Your task to perform on an android device: Find coffee shops on Maps Image 0: 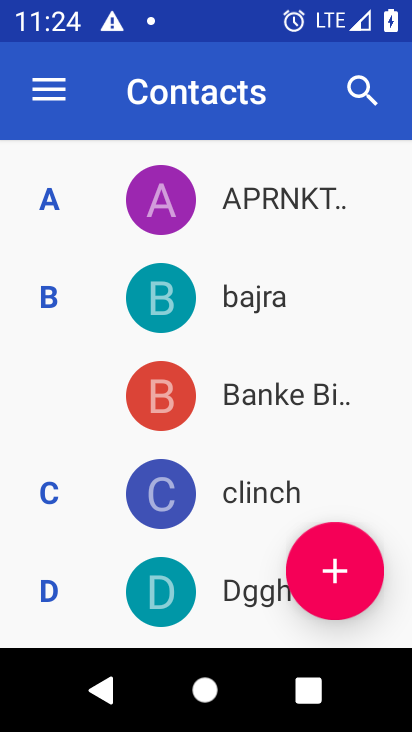
Step 0: press home button
Your task to perform on an android device: Find coffee shops on Maps Image 1: 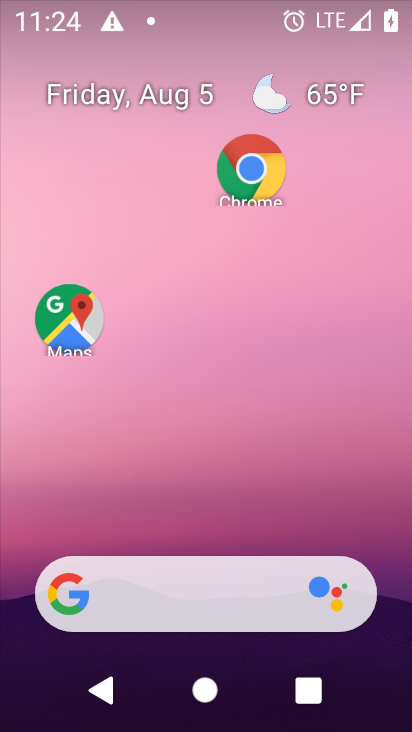
Step 1: click (97, 329)
Your task to perform on an android device: Find coffee shops on Maps Image 2: 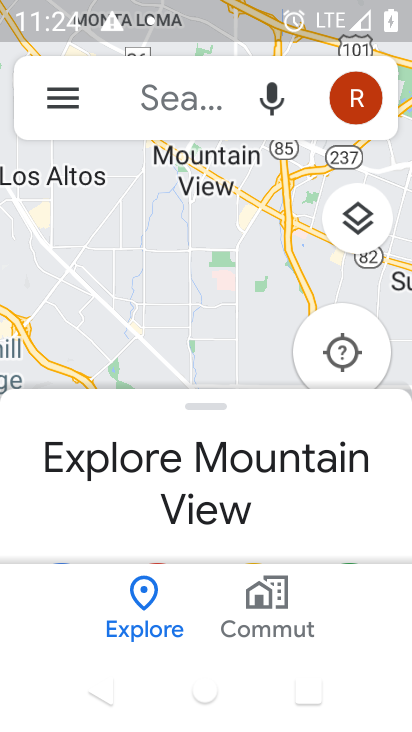
Step 2: click (129, 120)
Your task to perform on an android device: Find coffee shops on Maps Image 3: 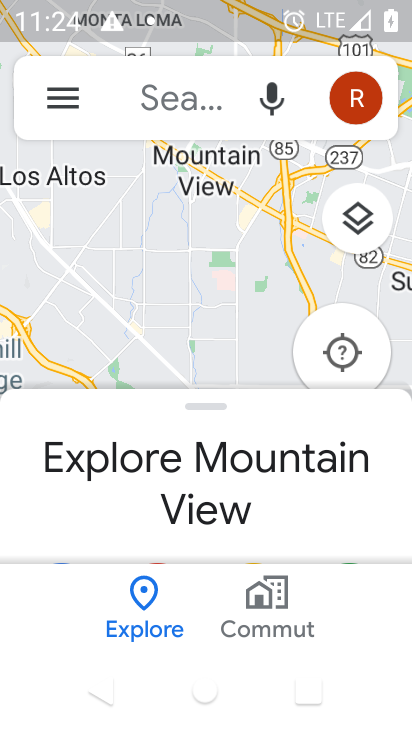
Step 3: click (177, 93)
Your task to perform on an android device: Find coffee shops on Maps Image 4: 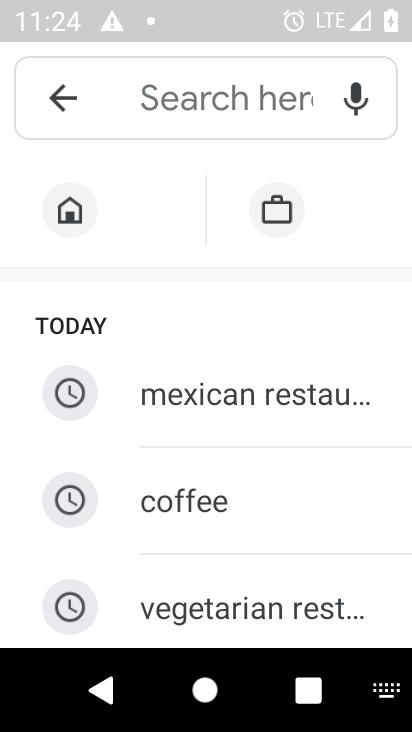
Step 4: type "coffee shops"
Your task to perform on an android device: Find coffee shops on Maps Image 5: 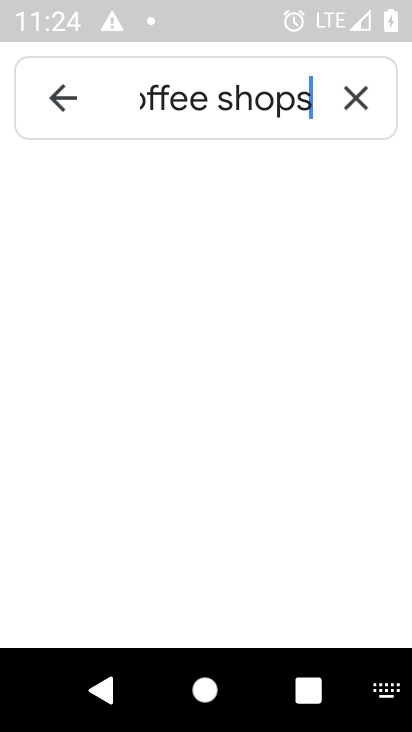
Step 5: type ""
Your task to perform on an android device: Find coffee shops on Maps Image 6: 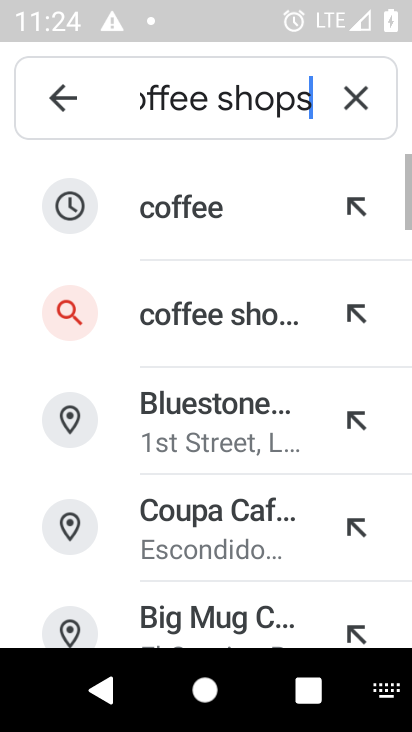
Step 6: click (215, 307)
Your task to perform on an android device: Find coffee shops on Maps Image 7: 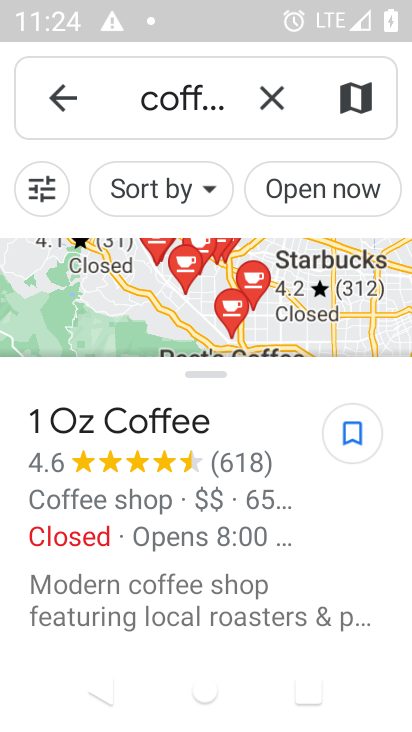
Step 7: task complete